Your task to perform on an android device: Search for pizza restaurants on Maps Image 0: 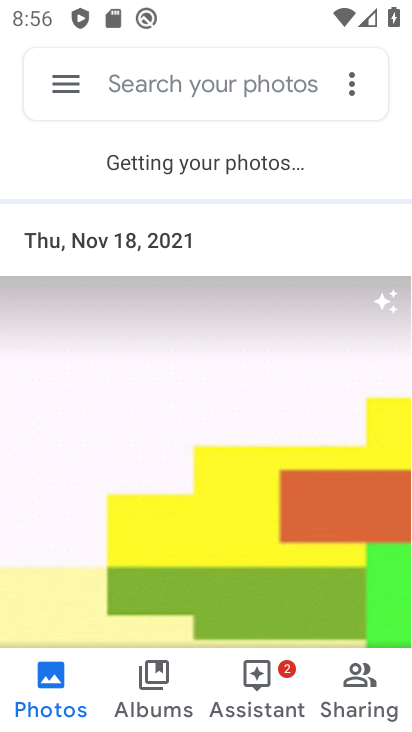
Step 0: press home button
Your task to perform on an android device: Search for pizza restaurants on Maps Image 1: 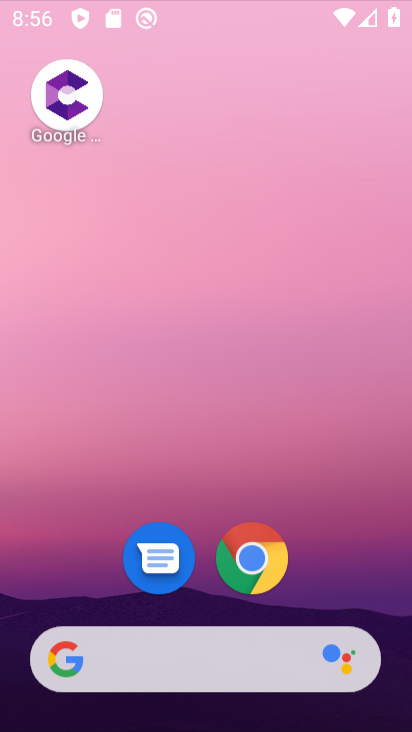
Step 1: click (408, 323)
Your task to perform on an android device: Search for pizza restaurants on Maps Image 2: 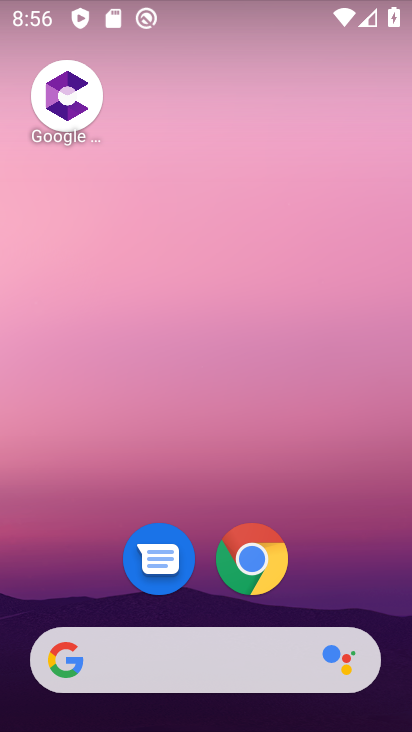
Step 2: drag from (326, 456) to (371, 117)
Your task to perform on an android device: Search for pizza restaurants on Maps Image 3: 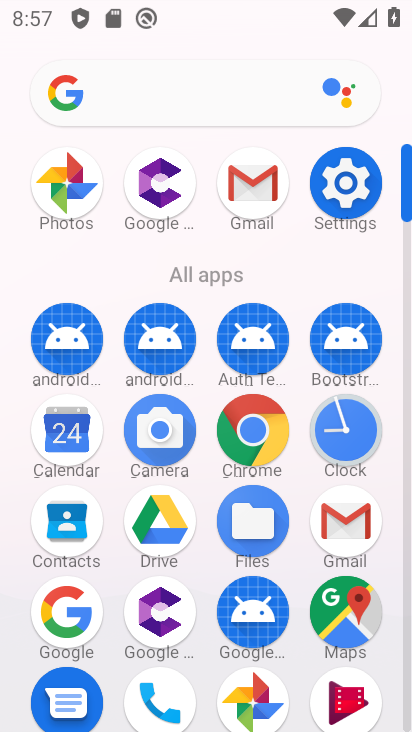
Step 3: click (356, 606)
Your task to perform on an android device: Search for pizza restaurants on Maps Image 4: 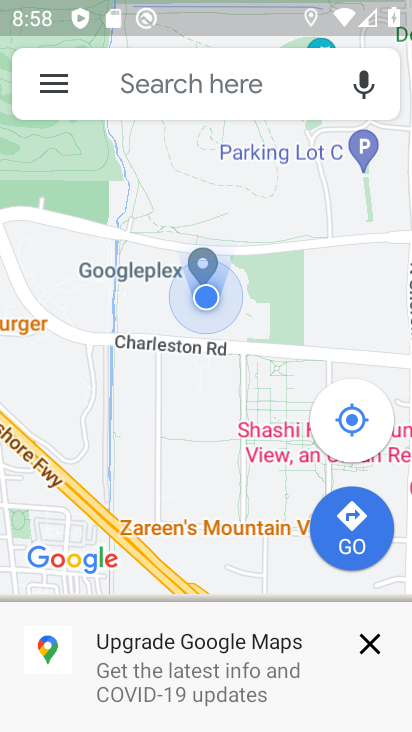
Step 4: click (239, 67)
Your task to perform on an android device: Search for pizza restaurants on Maps Image 5: 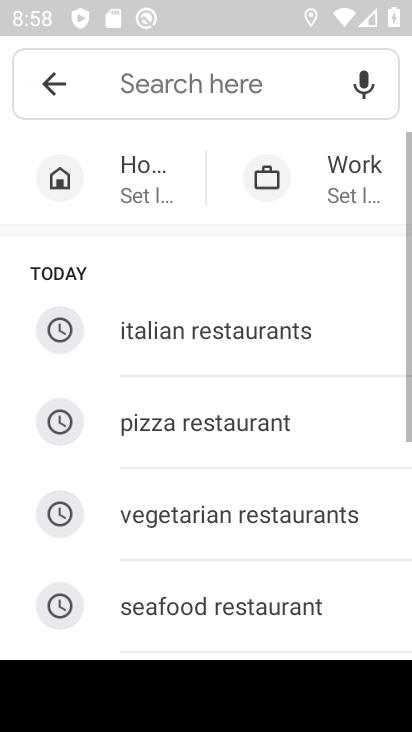
Step 5: click (256, 425)
Your task to perform on an android device: Search for pizza restaurants on Maps Image 6: 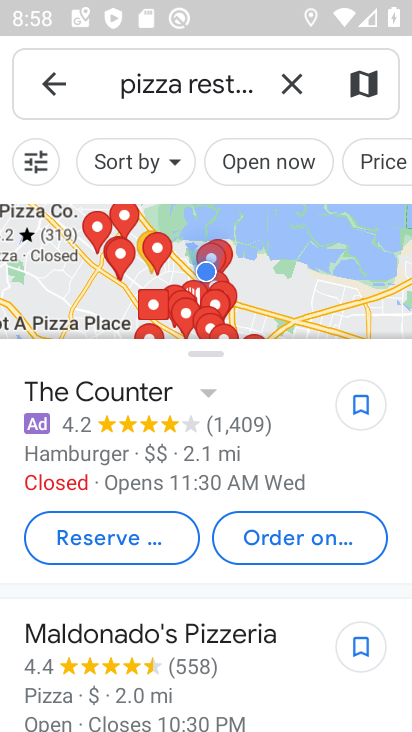
Step 6: task complete